Your task to perform on an android device: turn on sleep mode Image 0: 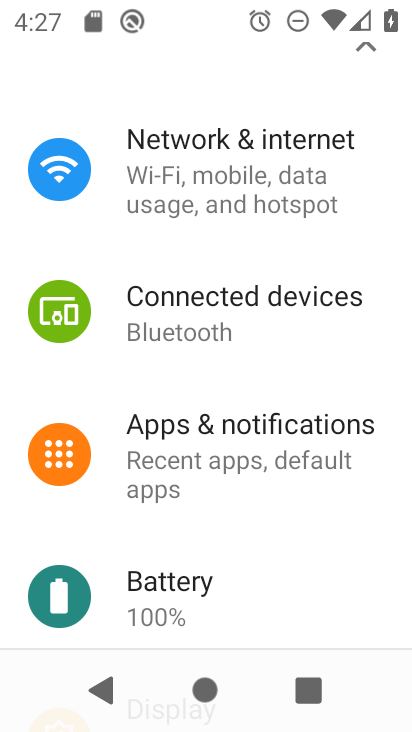
Step 0: press home button
Your task to perform on an android device: turn on sleep mode Image 1: 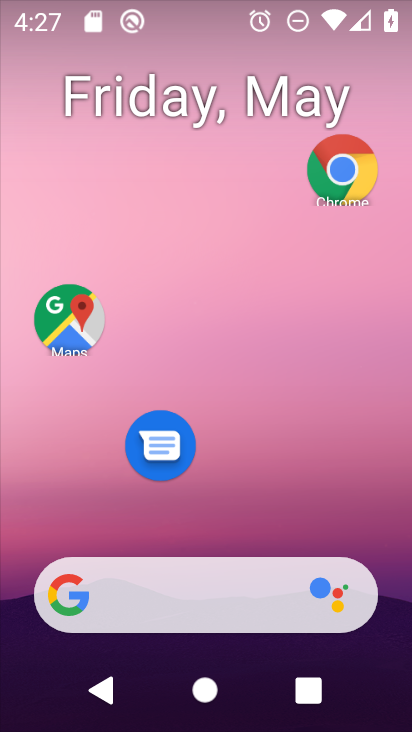
Step 1: drag from (213, 534) to (207, 0)
Your task to perform on an android device: turn on sleep mode Image 2: 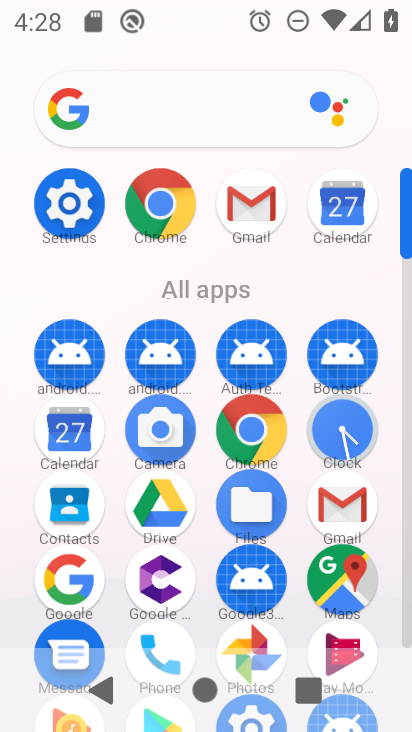
Step 2: click (65, 206)
Your task to perform on an android device: turn on sleep mode Image 3: 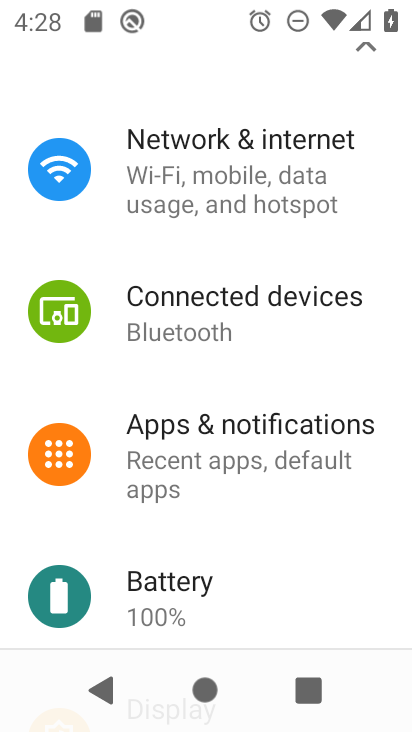
Step 3: task complete